Your task to perform on an android device: toggle priority inbox in the gmail app Image 0: 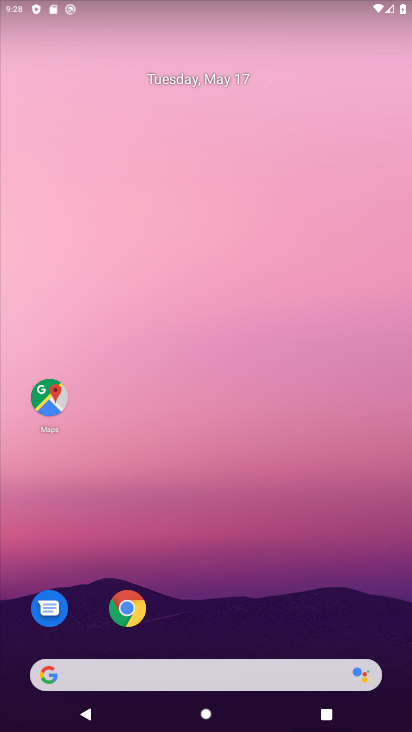
Step 0: drag from (266, 532) to (186, 212)
Your task to perform on an android device: toggle priority inbox in the gmail app Image 1: 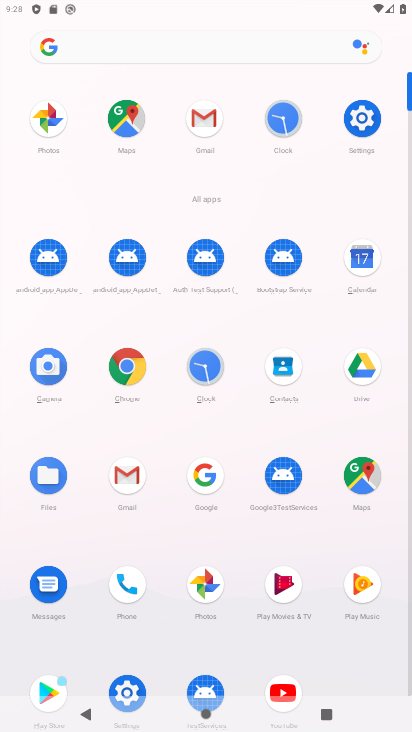
Step 1: click (206, 120)
Your task to perform on an android device: toggle priority inbox in the gmail app Image 2: 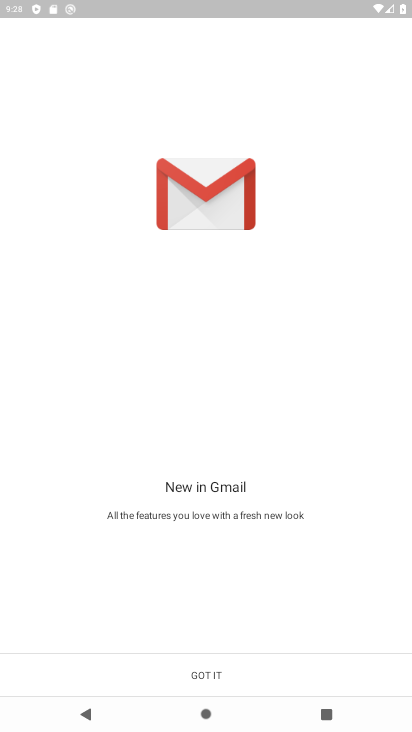
Step 2: click (192, 677)
Your task to perform on an android device: toggle priority inbox in the gmail app Image 3: 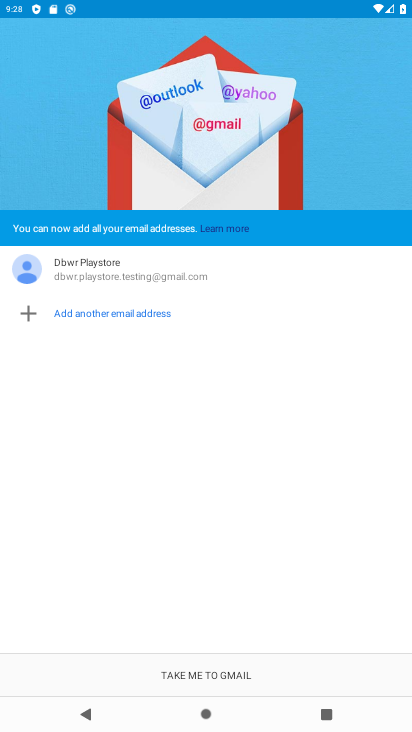
Step 3: click (192, 677)
Your task to perform on an android device: toggle priority inbox in the gmail app Image 4: 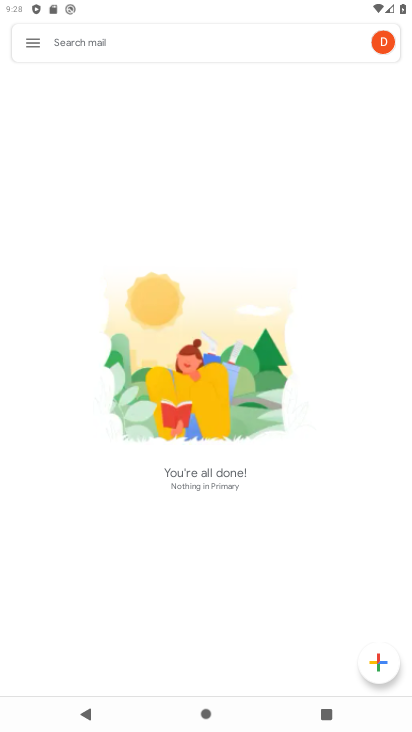
Step 4: click (29, 35)
Your task to perform on an android device: toggle priority inbox in the gmail app Image 5: 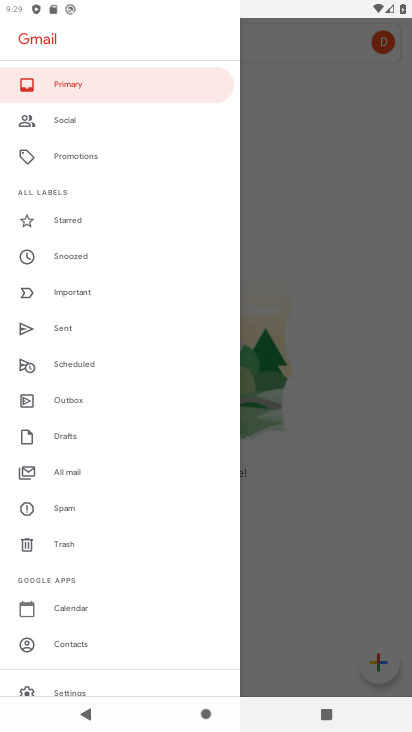
Step 5: click (44, 687)
Your task to perform on an android device: toggle priority inbox in the gmail app Image 6: 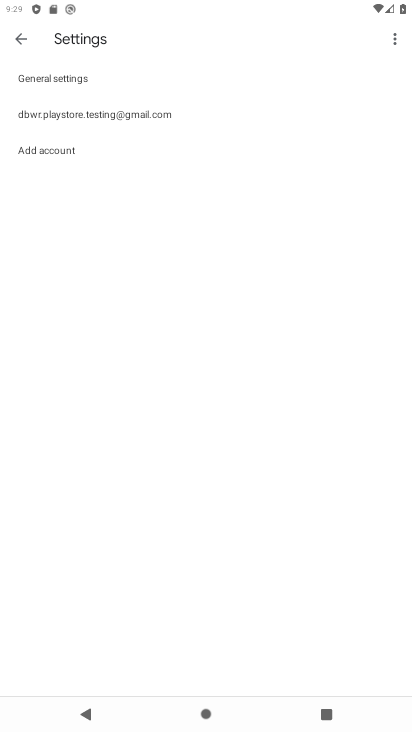
Step 6: click (62, 114)
Your task to perform on an android device: toggle priority inbox in the gmail app Image 7: 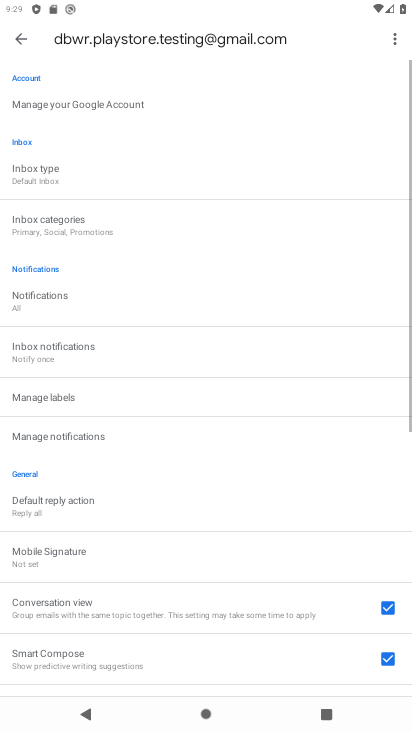
Step 7: click (31, 172)
Your task to perform on an android device: toggle priority inbox in the gmail app Image 8: 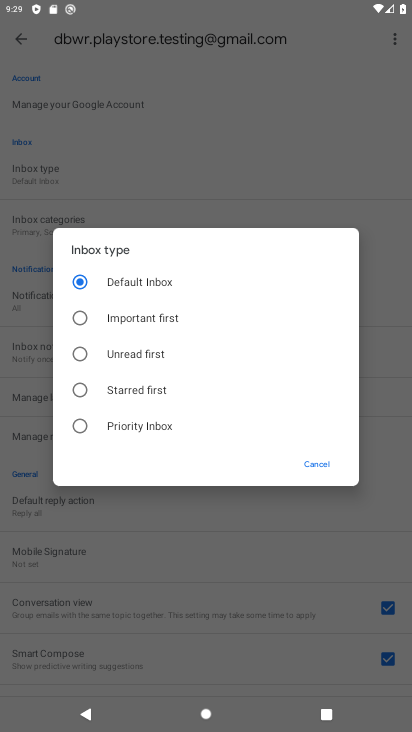
Step 8: click (77, 425)
Your task to perform on an android device: toggle priority inbox in the gmail app Image 9: 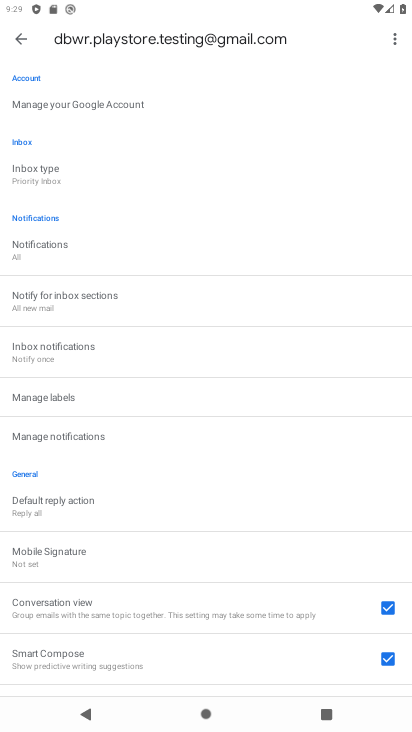
Step 9: task complete